Your task to perform on an android device: Show me recent news Image 0: 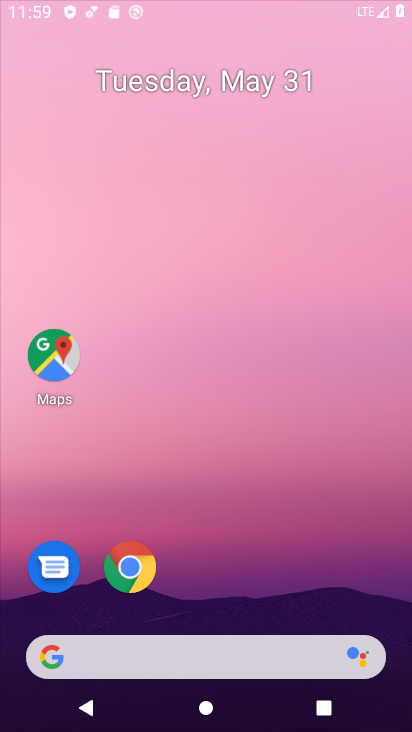
Step 0: click (221, 57)
Your task to perform on an android device: Show me recent news Image 1: 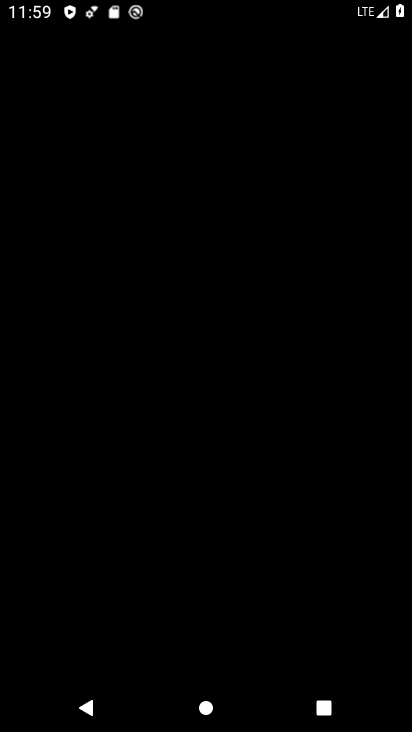
Step 1: drag from (267, 596) to (248, 534)
Your task to perform on an android device: Show me recent news Image 2: 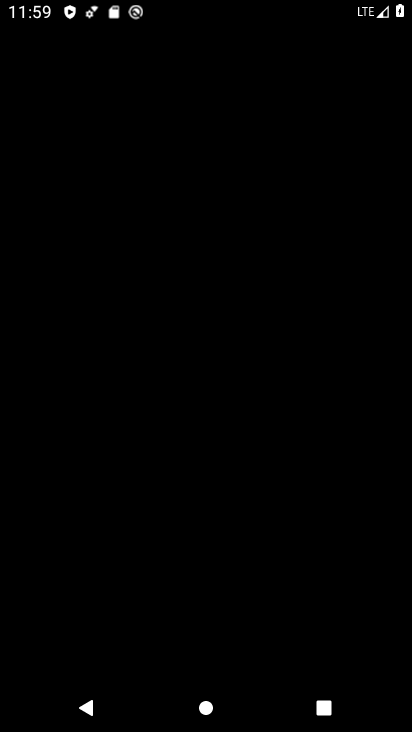
Step 2: press home button
Your task to perform on an android device: Show me recent news Image 3: 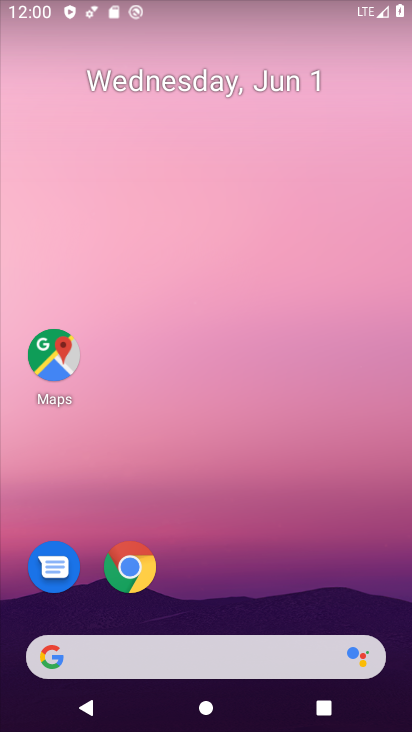
Step 3: click (320, 652)
Your task to perform on an android device: Show me recent news Image 4: 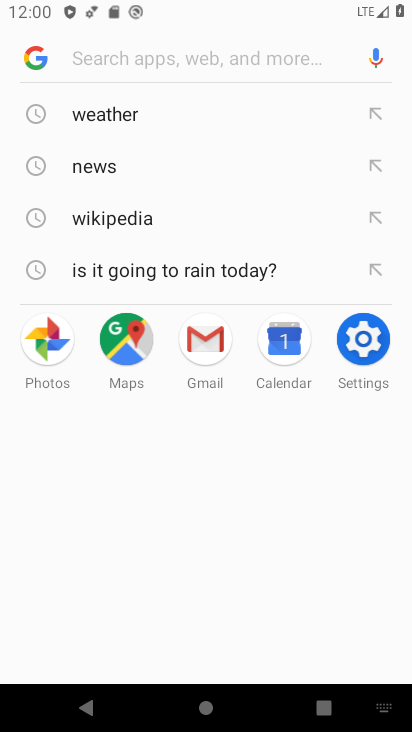
Step 4: type "recent news"
Your task to perform on an android device: Show me recent news Image 5: 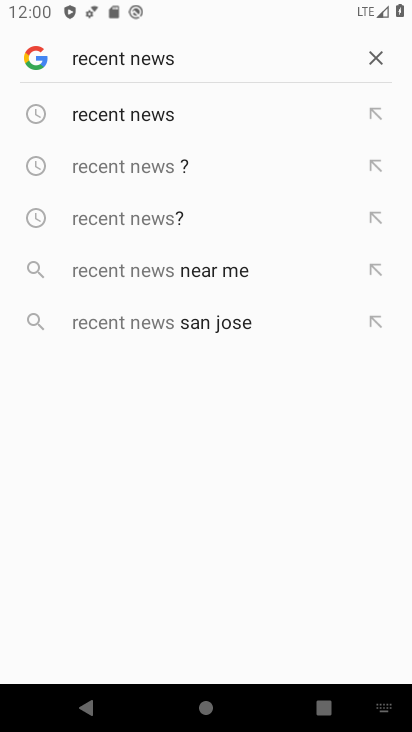
Step 5: click (128, 116)
Your task to perform on an android device: Show me recent news Image 6: 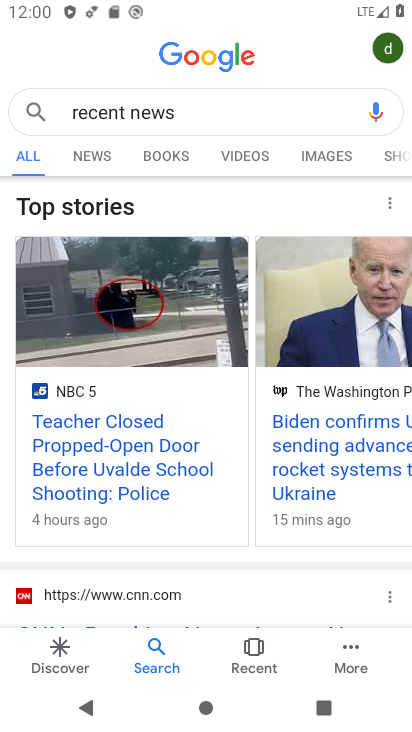
Step 6: task complete